Your task to perform on an android device: turn on notifications settings in the gmail app Image 0: 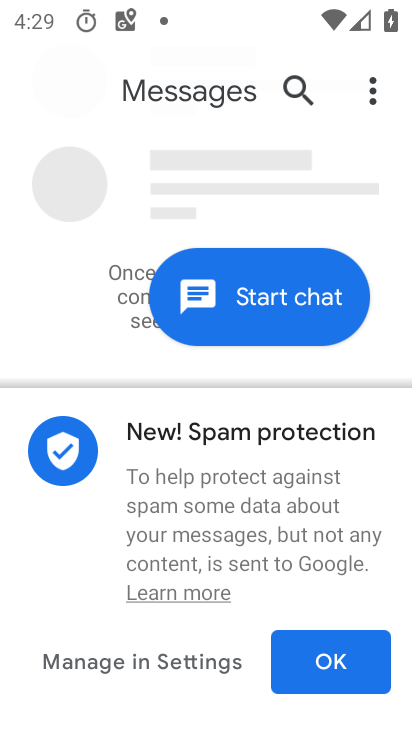
Step 0: press home button
Your task to perform on an android device: turn on notifications settings in the gmail app Image 1: 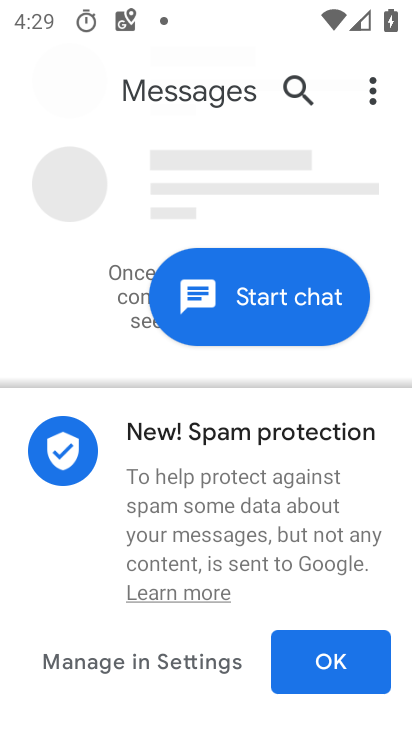
Step 1: press home button
Your task to perform on an android device: turn on notifications settings in the gmail app Image 2: 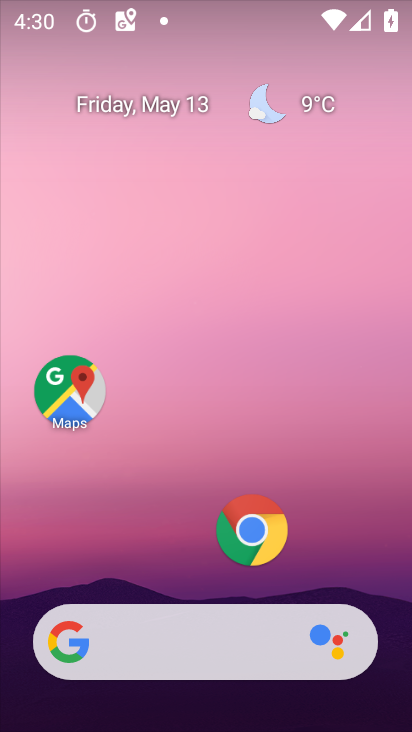
Step 2: drag from (186, 570) to (225, 84)
Your task to perform on an android device: turn on notifications settings in the gmail app Image 3: 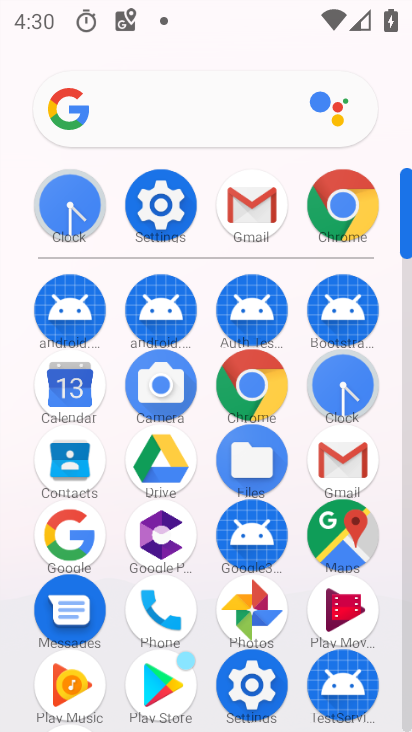
Step 3: click (337, 451)
Your task to perform on an android device: turn on notifications settings in the gmail app Image 4: 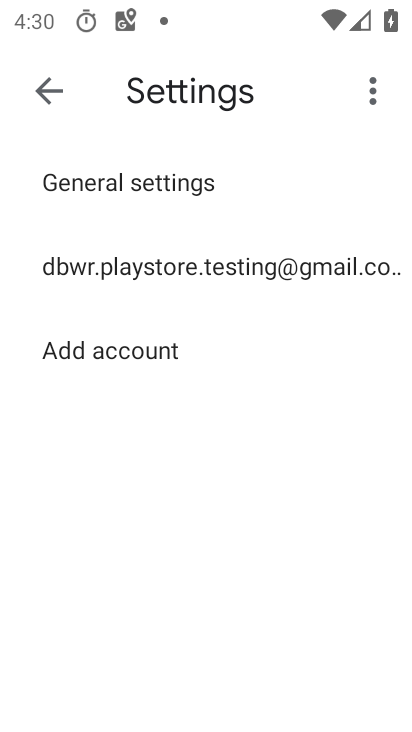
Step 4: click (227, 182)
Your task to perform on an android device: turn on notifications settings in the gmail app Image 5: 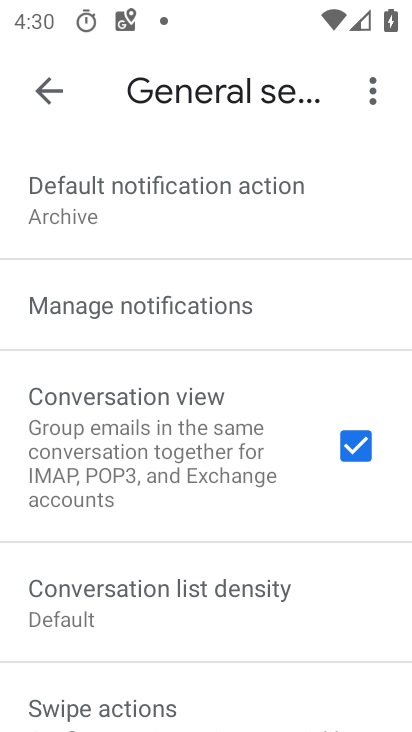
Step 5: click (159, 321)
Your task to perform on an android device: turn on notifications settings in the gmail app Image 6: 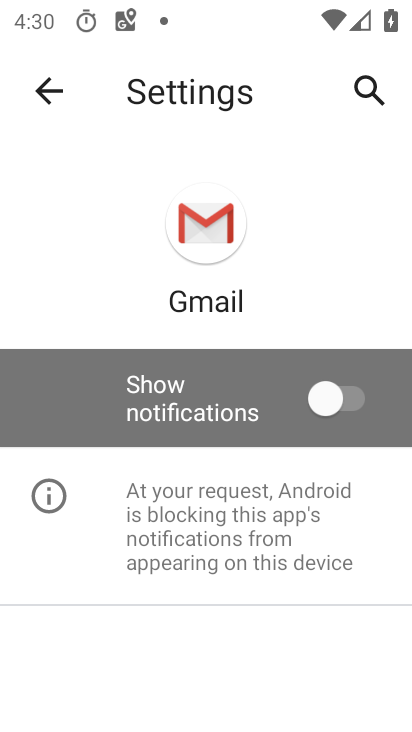
Step 6: click (339, 403)
Your task to perform on an android device: turn on notifications settings in the gmail app Image 7: 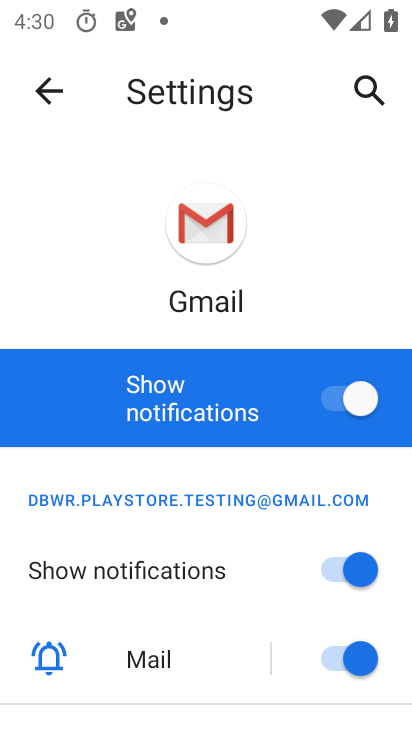
Step 7: task complete